Your task to perform on an android device: Go to privacy settings Image 0: 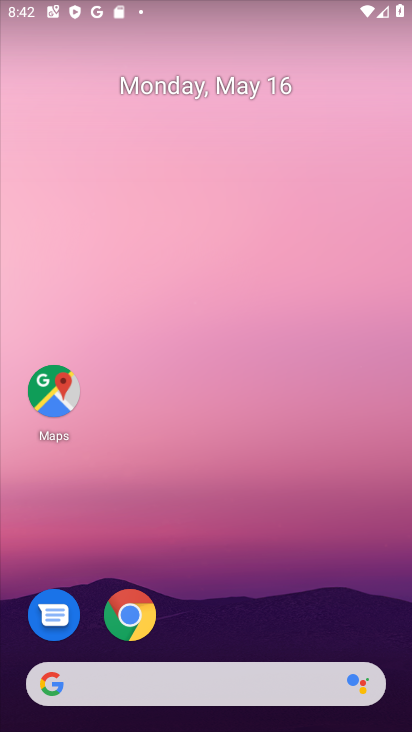
Step 0: drag from (19, 592) to (270, 27)
Your task to perform on an android device: Go to privacy settings Image 1: 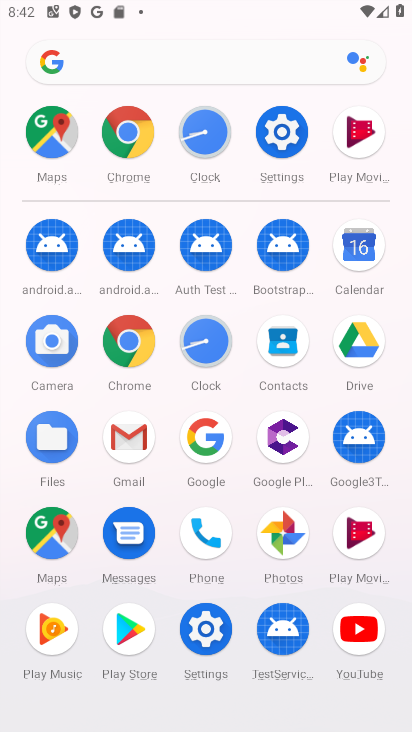
Step 1: click (270, 153)
Your task to perform on an android device: Go to privacy settings Image 2: 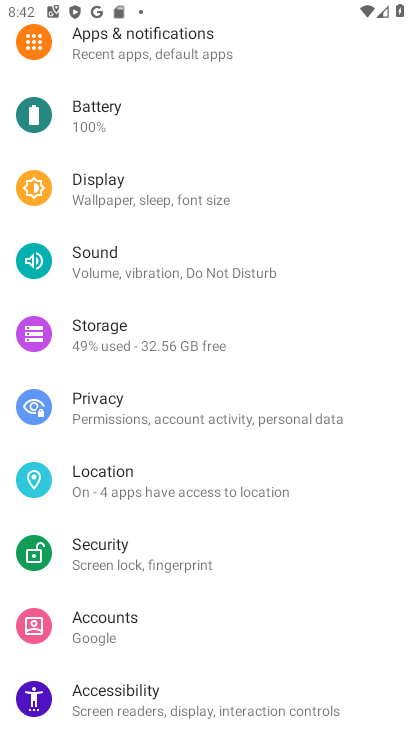
Step 2: click (144, 400)
Your task to perform on an android device: Go to privacy settings Image 3: 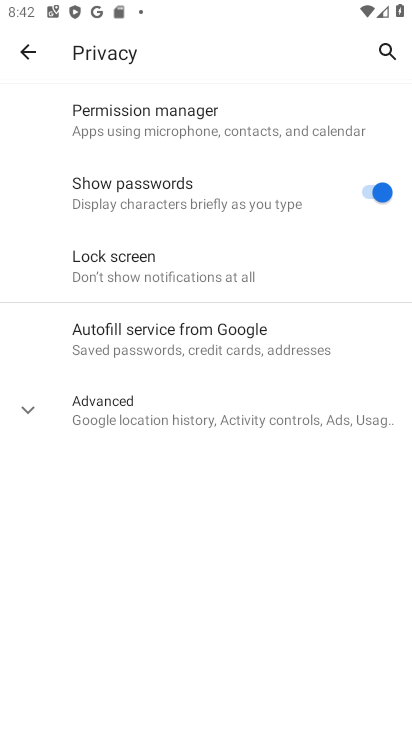
Step 3: task complete